Your task to perform on an android device: turn on javascript in the chrome app Image 0: 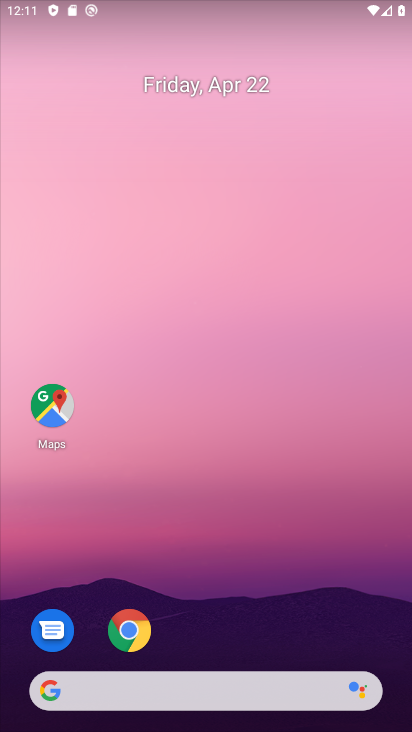
Step 0: click (126, 633)
Your task to perform on an android device: turn on javascript in the chrome app Image 1: 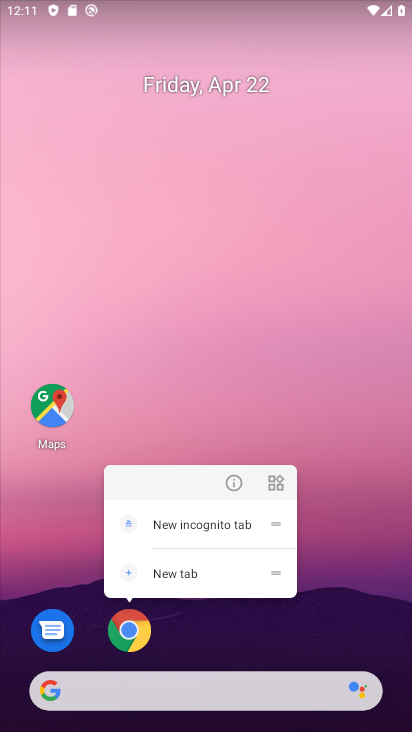
Step 1: click (126, 633)
Your task to perform on an android device: turn on javascript in the chrome app Image 2: 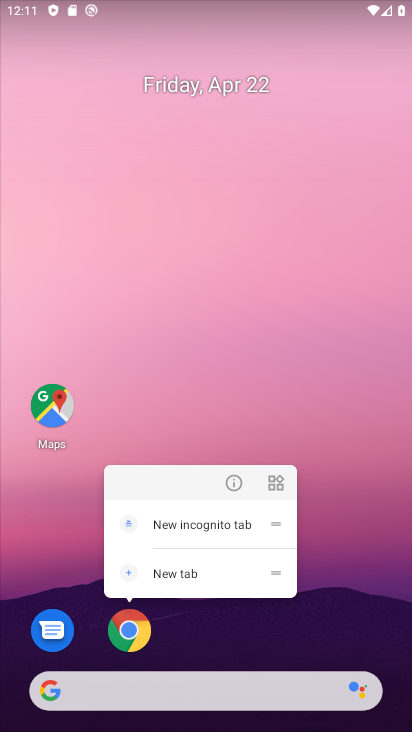
Step 2: click (126, 633)
Your task to perform on an android device: turn on javascript in the chrome app Image 3: 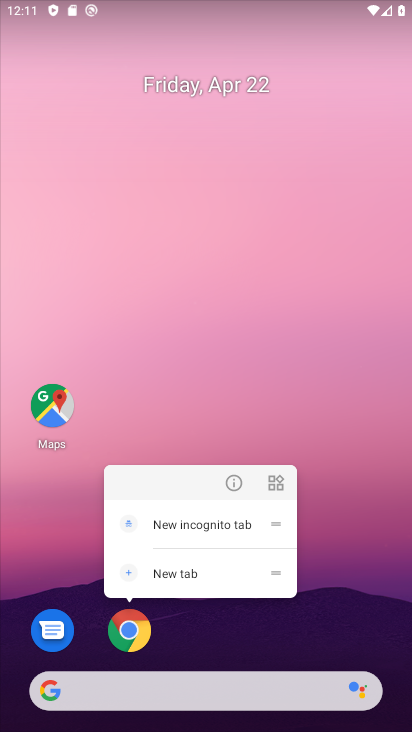
Step 3: click (126, 633)
Your task to perform on an android device: turn on javascript in the chrome app Image 4: 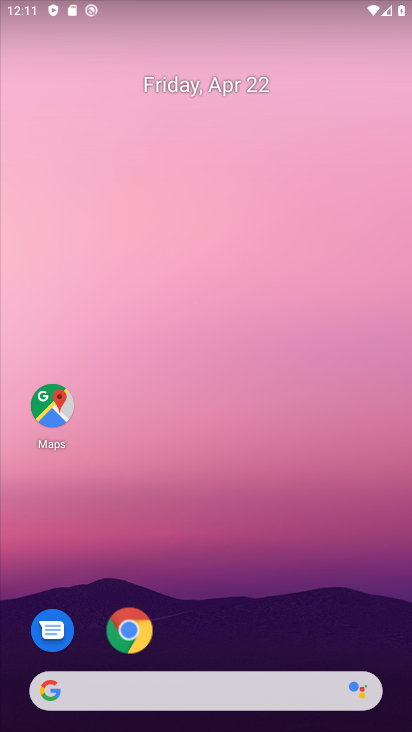
Step 4: click (126, 633)
Your task to perform on an android device: turn on javascript in the chrome app Image 5: 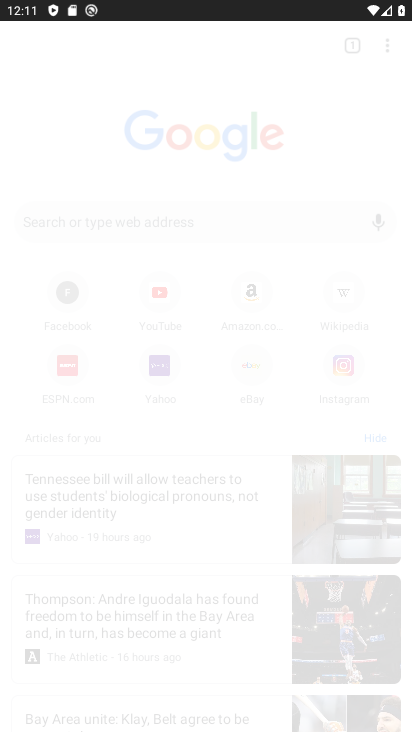
Step 5: click (126, 633)
Your task to perform on an android device: turn on javascript in the chrome app Image 6: 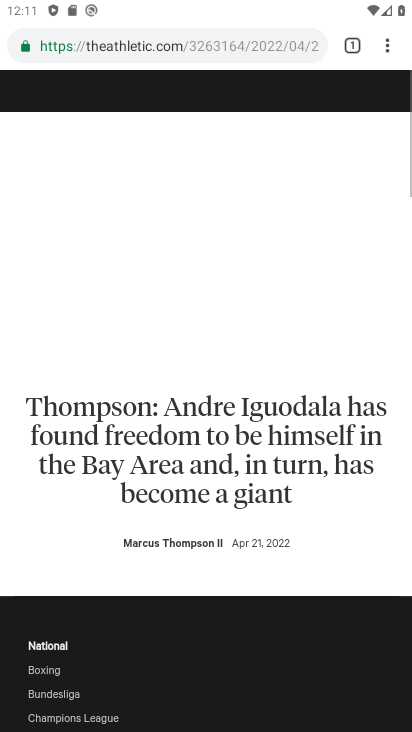
Step 6: press back button
Your task to perform on an android device: turn on javascript in the chrome app Image 7: 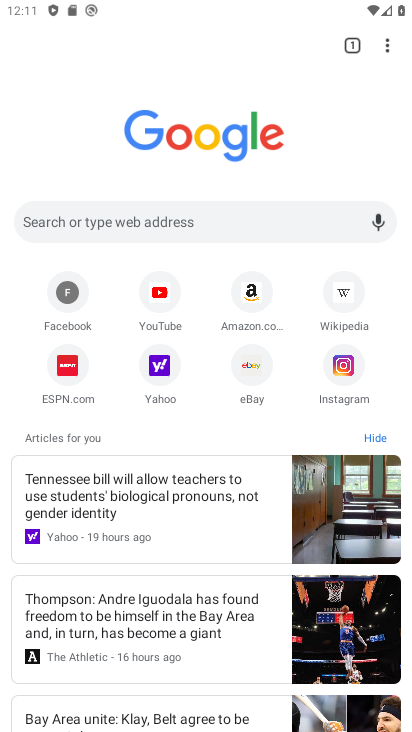
Step 7: click (390, 45)
Your task to perform on an android device: turn on javascript in the chrome app Image 8: 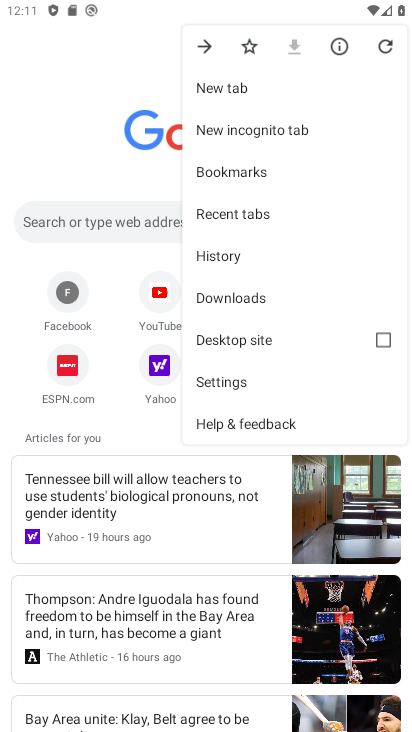
Step 8: click (221, 378)
Your task to perform on an android device: turn on javascript in the chrome app Image 9: 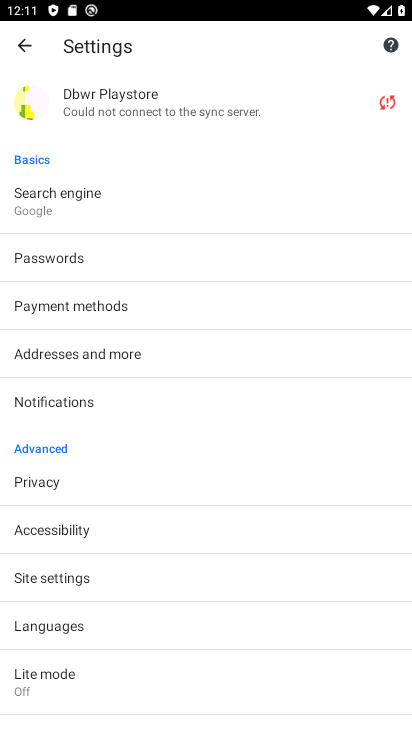
Step 9: click (54, 579)
Your task to perform on an android device: turn on javascript in the chrome app Image 10: 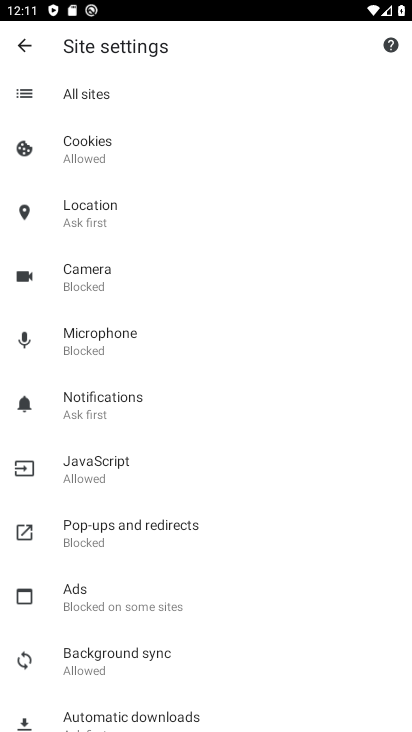
Step 10: click (98, 476)
Your task to perform on an android device: turn on javascript in the chrome app Image 11: 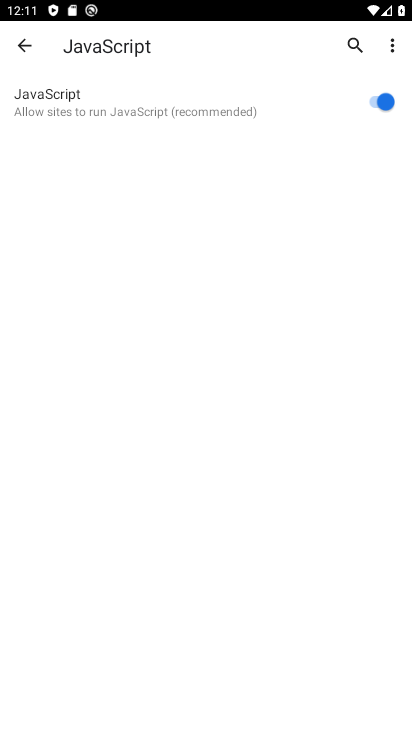
Step 11: task complete